Your task to perform on an android device: Open network settings Image 0: 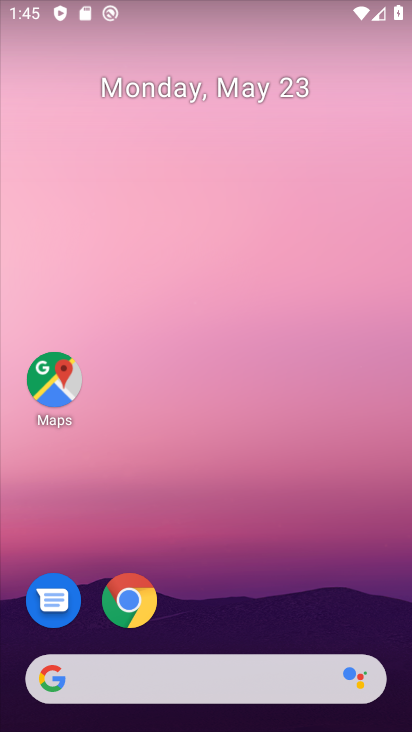
Step 0: drag from (241, 599) to (237, 142)
Your task to perform on an android device: Open network settings Image 1: 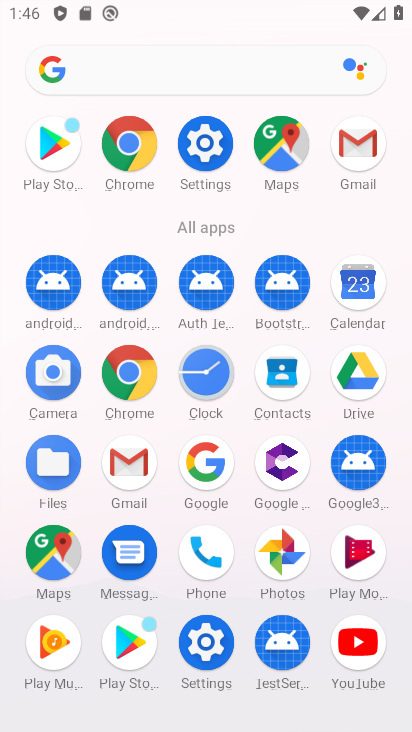
Step 1: click (212, 140)
Your task to perform on an android device: Open network settings Image 2: 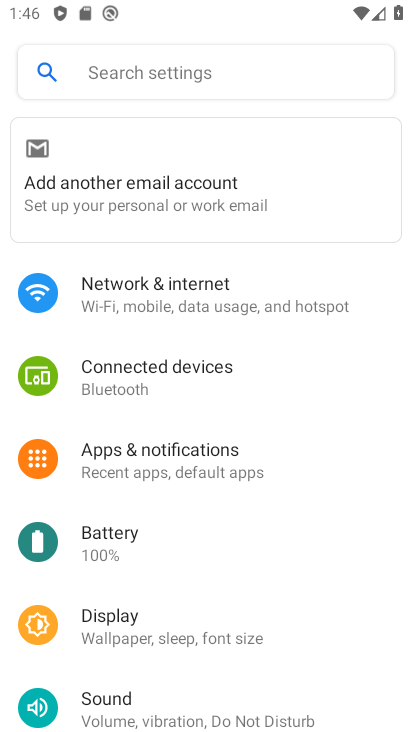
Step 2: click (183, 292)
Your task to perform on an android device: Open network settings Image 3: 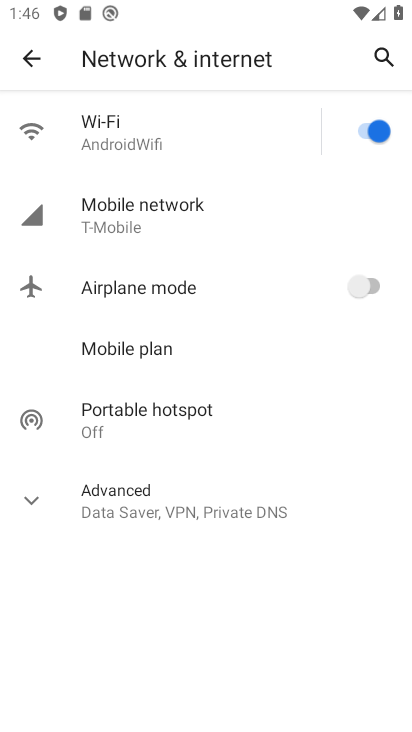
Step 3: task complete